Your task to perform on an android device: turn off location history Image 0: 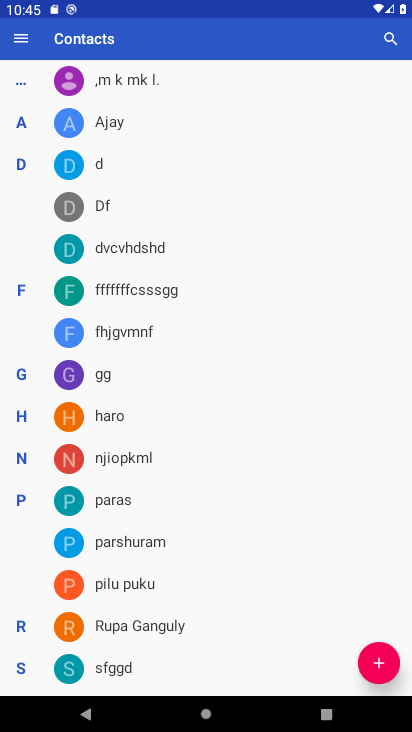
Step 0: press back button
Your task to perform on an android device: turn off location history Image 1: 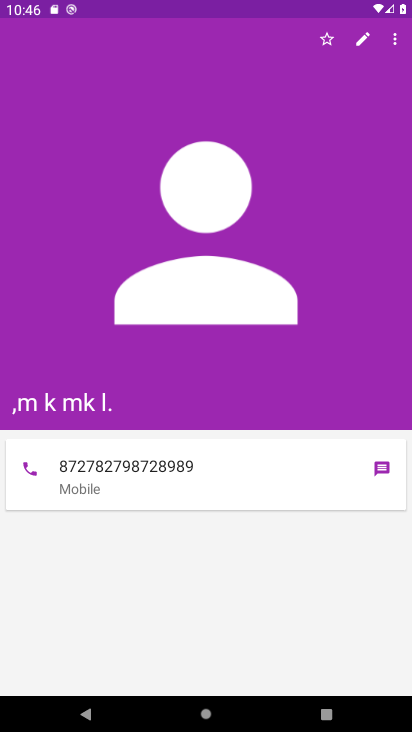
Step 1: press back button
Your task to perform on an android device: turn off location history Image 2: 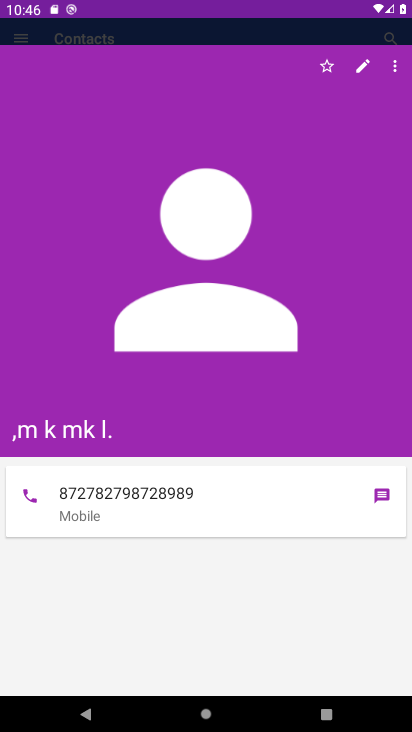
Step 2: press back button
Your task to perform on an android device: turn off location history Image 3: 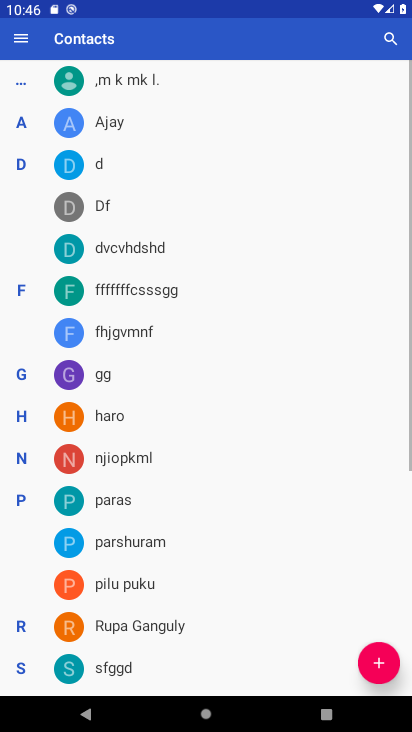
Step 3: press back button
Your task to perform on an android device: turn off location history Image 4: 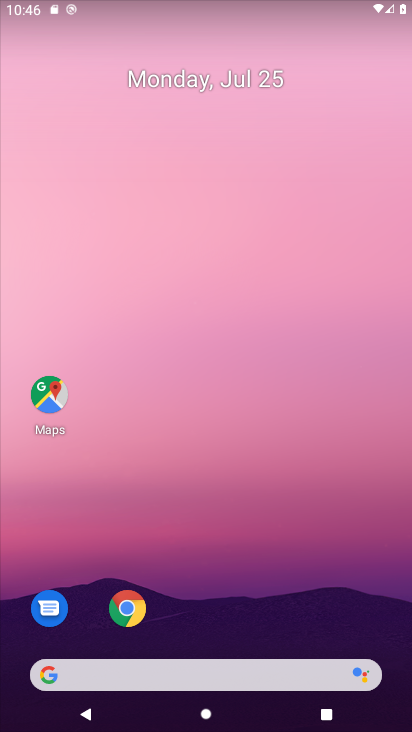
Step 4: drag from (272, 626) to (208, 220)
Your task to perform on an android device: turn off location history Image 5: 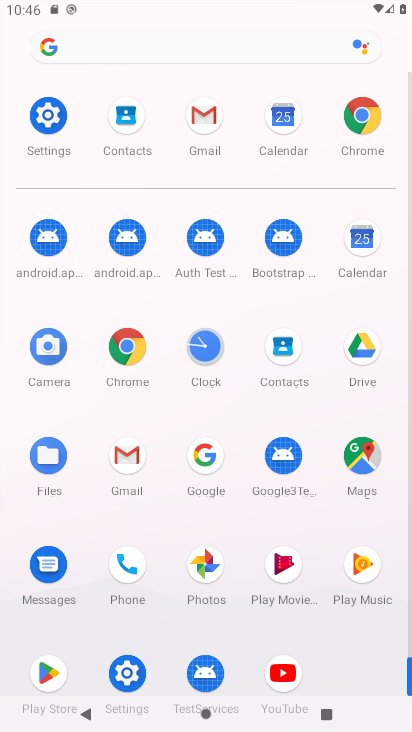
Step 5: click (40, 99)
Your task to perform on an android device: turn off location history Image 6: 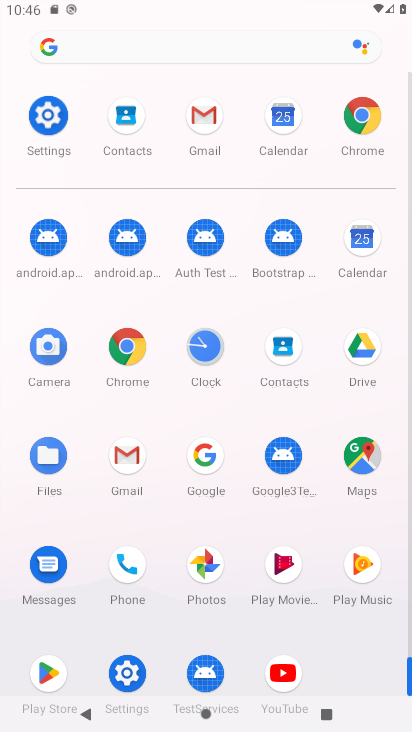
Step 6: click (39, 100)
Your task to perform on an android device: turn off location history Image 7: 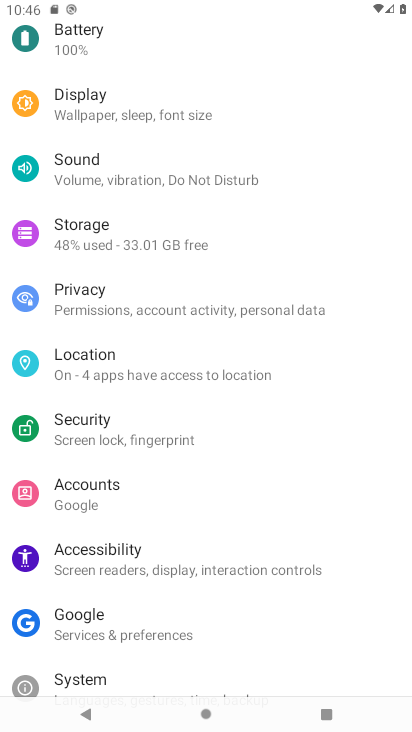
Step 7: click (93, 366)
Your task to perform on an android device: turn off location history Image 8: 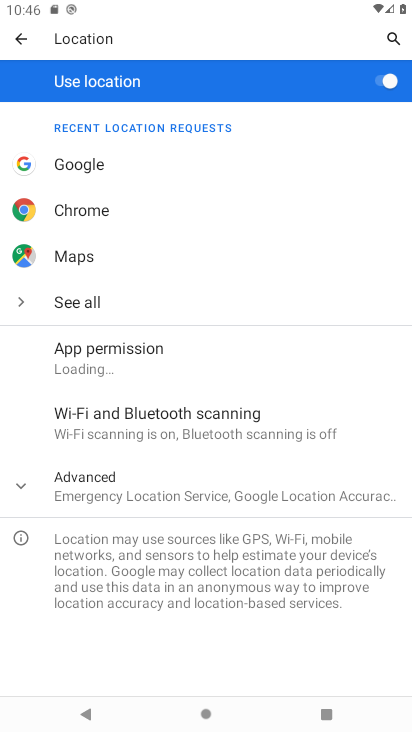
Step 8: click (99, 489)
Your task to perform on an android device: turn off location history Image 9: 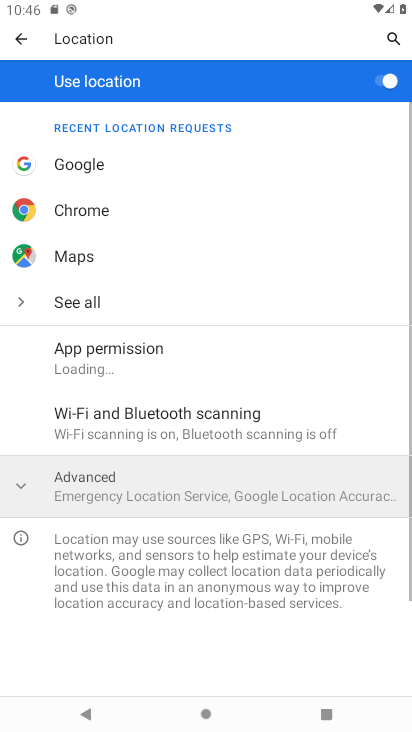
Step 9: click (99, 489)
Your task to perform on an android device: turn off location history Image 10: 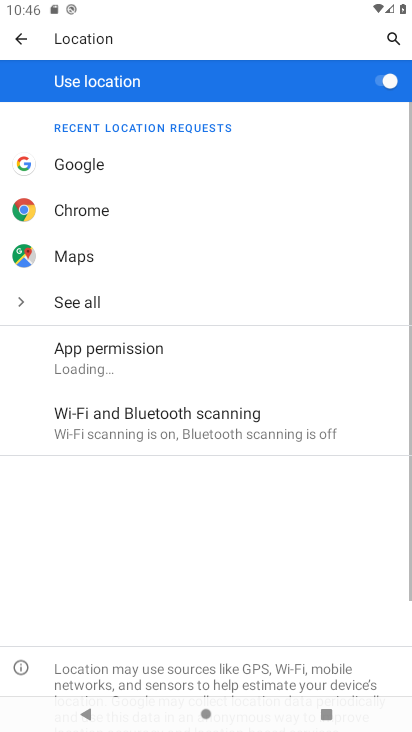
Step 10: click (100, 488)
Your task to perform on an android device: turn off location history Image 11: 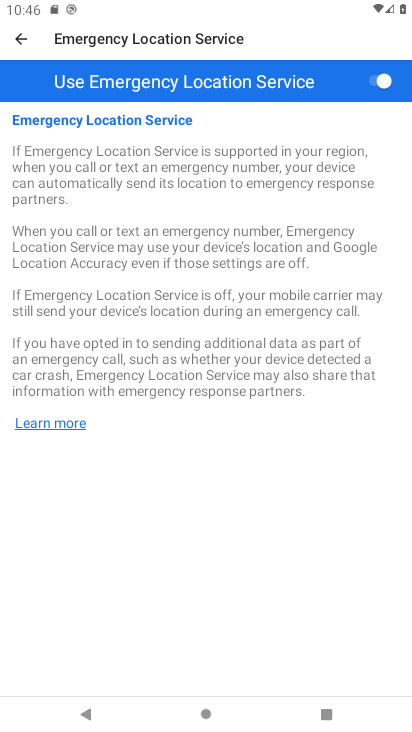
Step 11: click (20, 40)
Your task to perform on an android device: turn off location history Image 12: 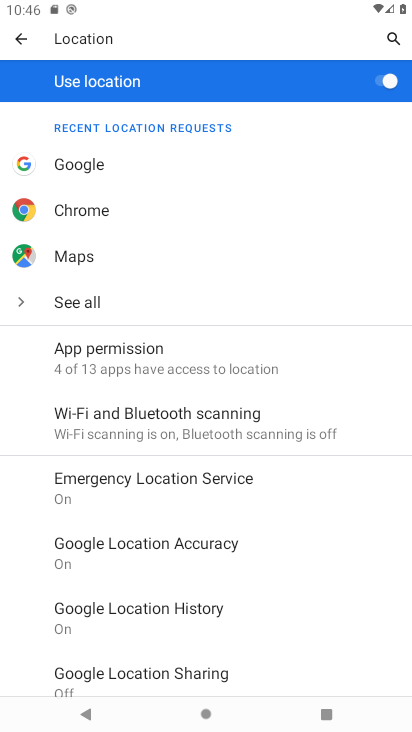
Step 12: click (180, 606)
Your task to perform on an android device: turn off location history Image 13: 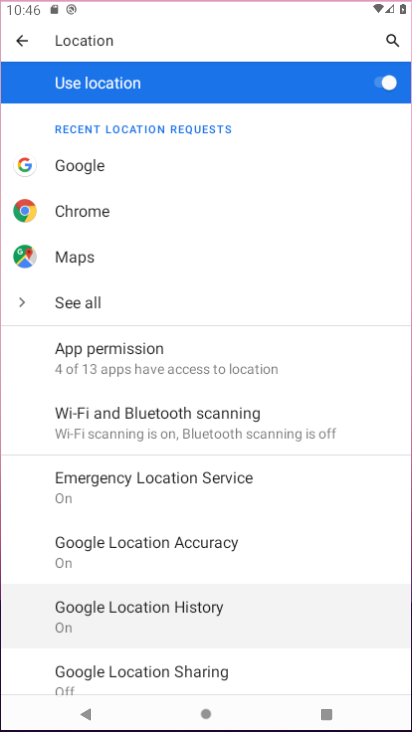
Step 13: click (176, 602)
Your task to perform on an android device: turn off location history Image 14: 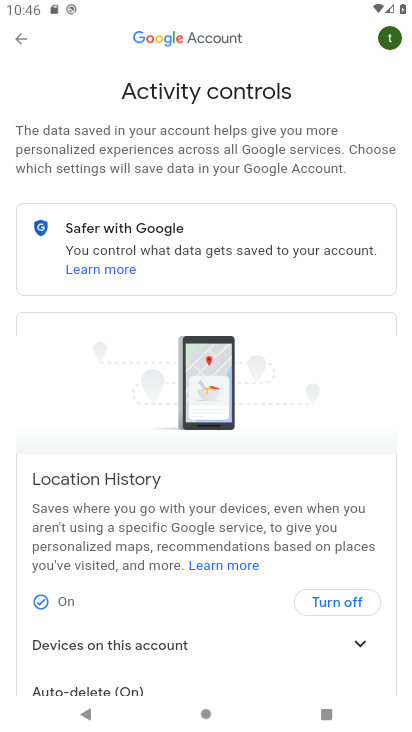
Step 14: click (40, 600)
Your task to perform on an android device: turn off location history Image 15: 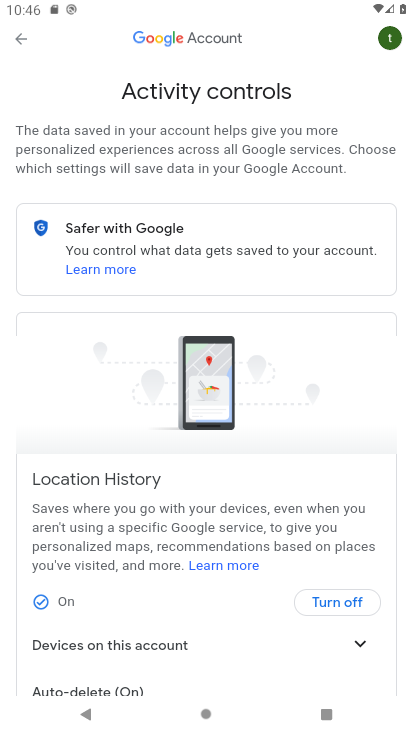
Step 15: click (39, 600)
Your task to perform on an android device: turn off location history Image 16: 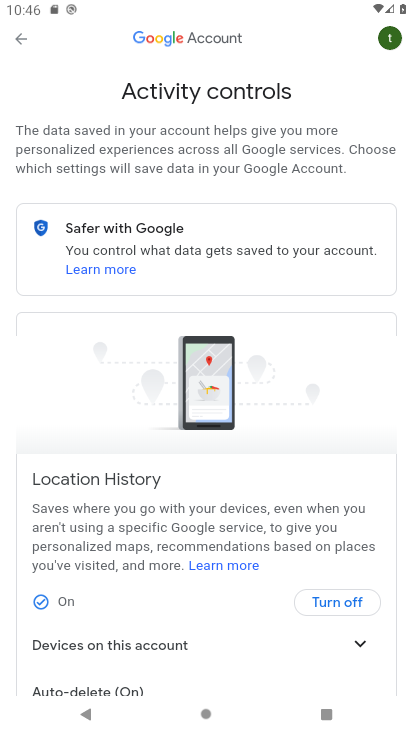
Step 16: task complete